Your task to perform on an android device: turn off data saver in the chrome app Image 0: 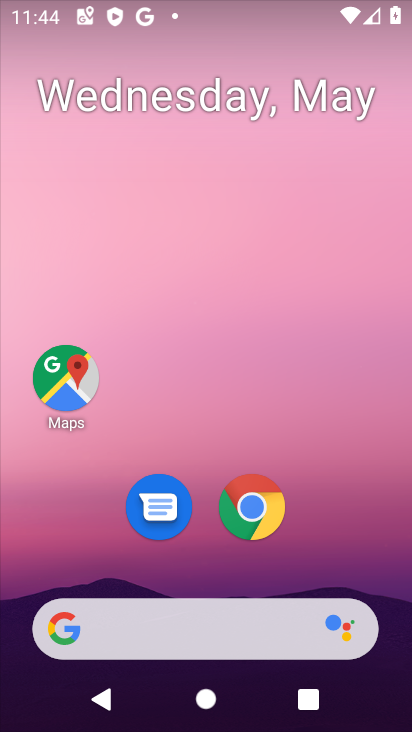
Step 0: click (238, 527)
Your task to perform on an android device: turn off data saver in the chrome app Image 1: 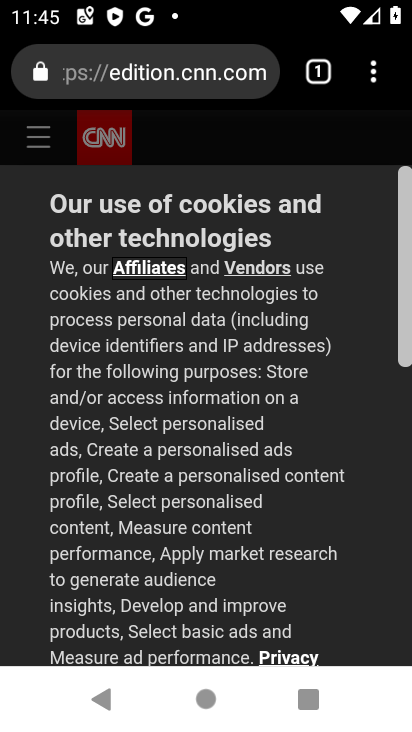
Step 1: drag from (367, 72) to (347, 514)
Your task to perform on an android device: turn off data saver in the chrome app Image 2: 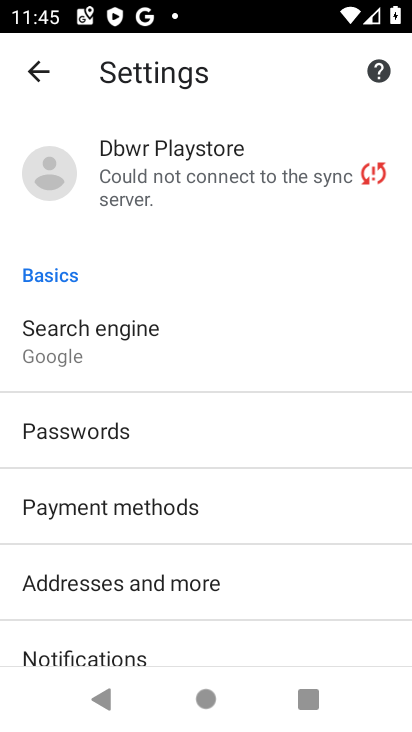
Step 2: drag from (269, 620) to (232, 363)
Your task to perform on an android device: turn off data saver in the chrome app Image 3: 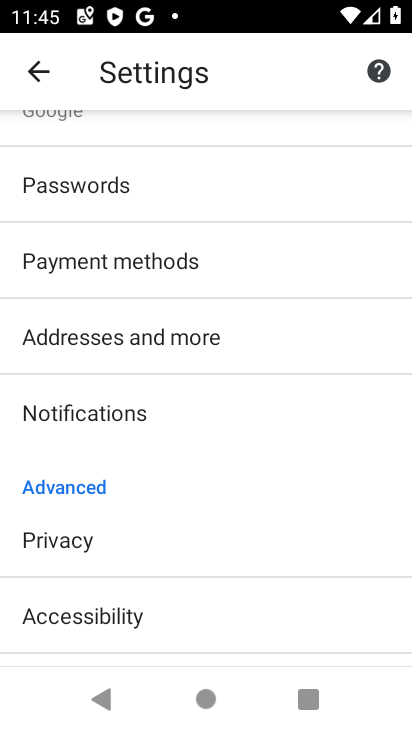
Step 3: drag from (162, 607) to (121, 217)
Your task to perform on an android device: turn off data saver in the chrome app Image 4: 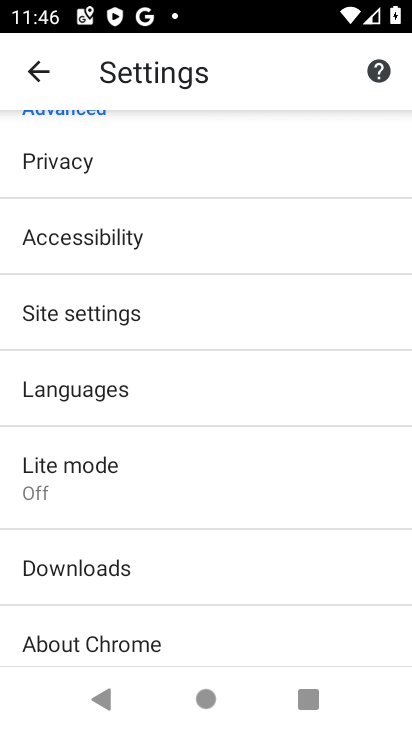
Step 4: drag from (247, 634) to (60, 494)
Your task to perform on an android device: turn off data saver in the chrome app Image 5: 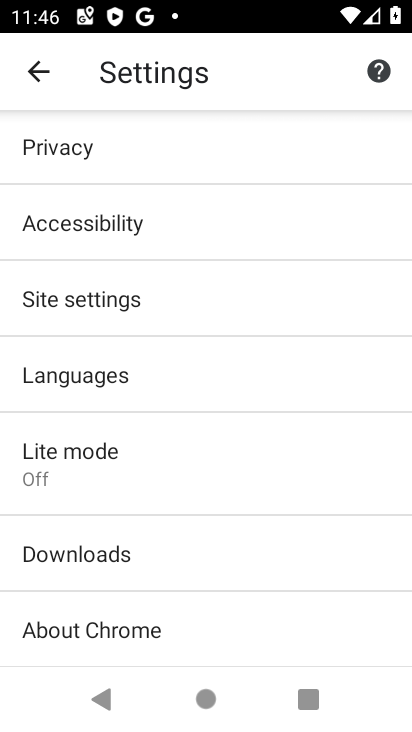
Step 5: click (118, 466)
Your task to perform on an android device: turn off data saver in the chrome app Image 6: 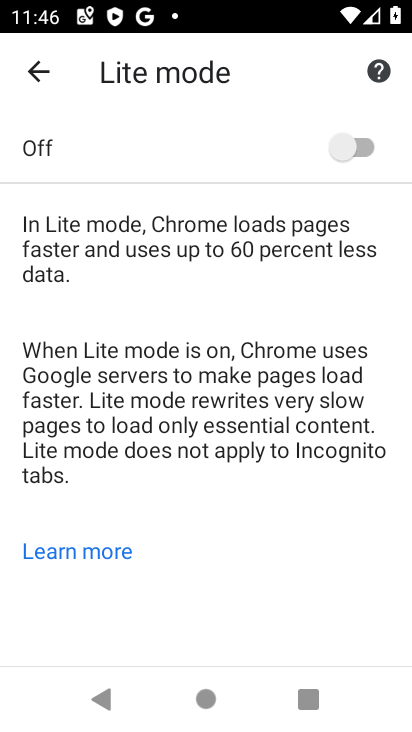
Step 6: click (359, 142)
Your task to perform on an android device: turn off data saver in the chrome app Image 7: 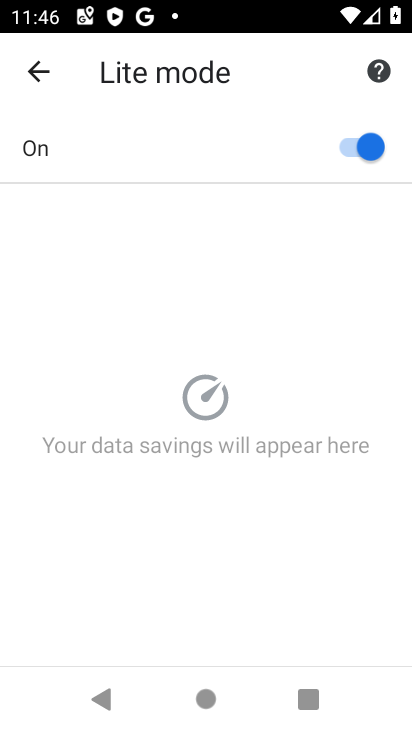
Step 7: click (374, 122)
Your task to perform on an android device: turn off data saver in the chrome app Image 8: 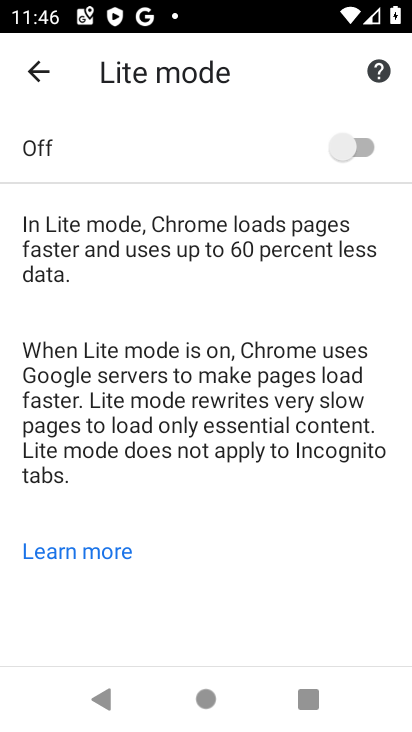
Step 8: task complete